Your task to perform on an android device: See recent photos Image 0: 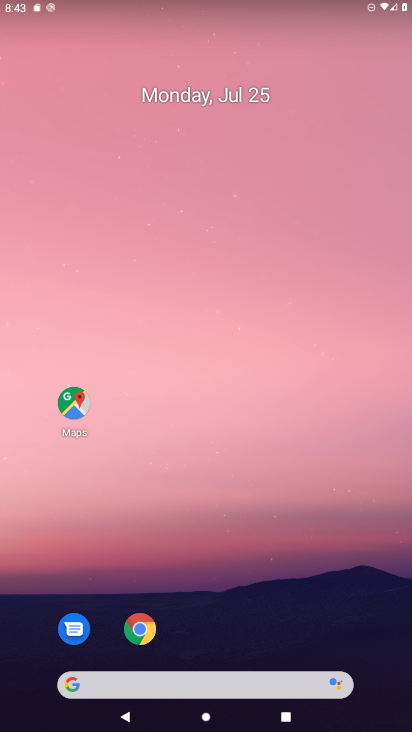
Step 0: drag from (242, 602) to (219, 0)
Your task to perform on an android device: See recent photos Image 1: 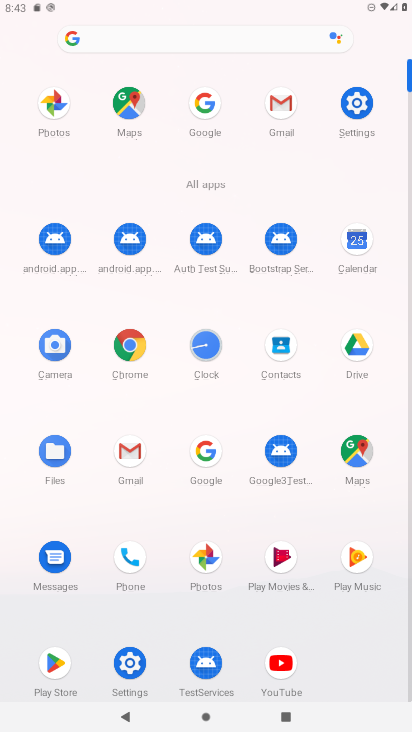
Step 1: click (52, 109)
Your task to perform on an android device: See recent photos Image 2: 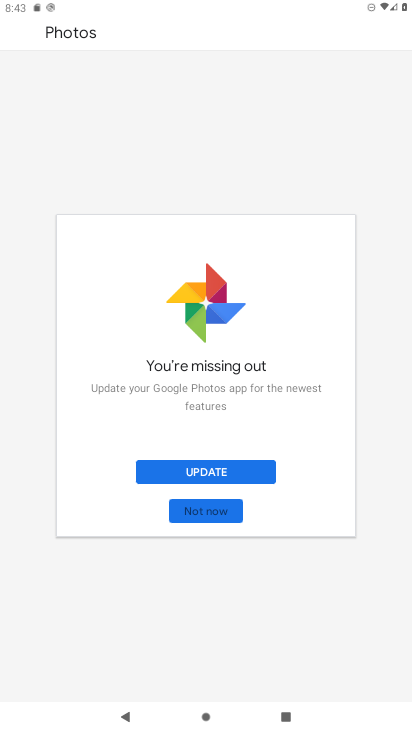
Step 2: click (208, 479)
Your task to perform on an android device: See recent photos Image 3: 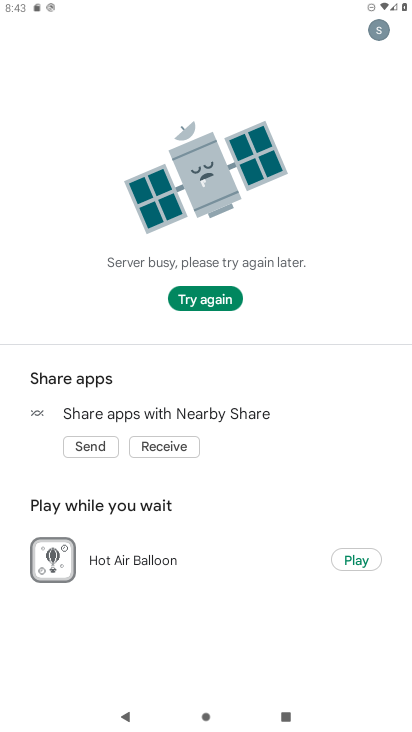
Step 3: press back button
Your task to perform on an android device: See recent photos Image 4: 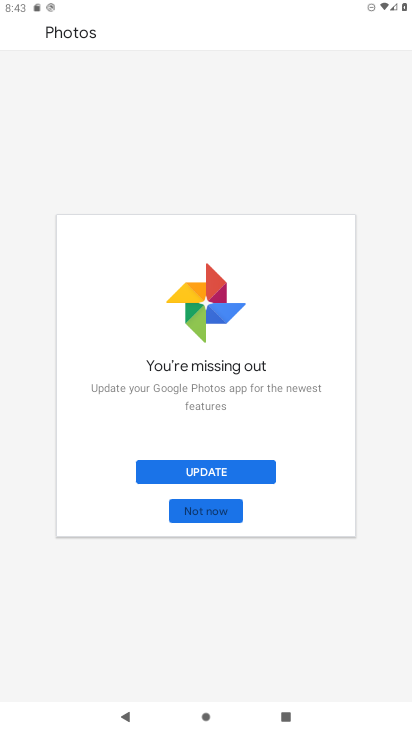
Step 4: click (216, 505)
Your task to perform on an android device: See recent photos Image 5: 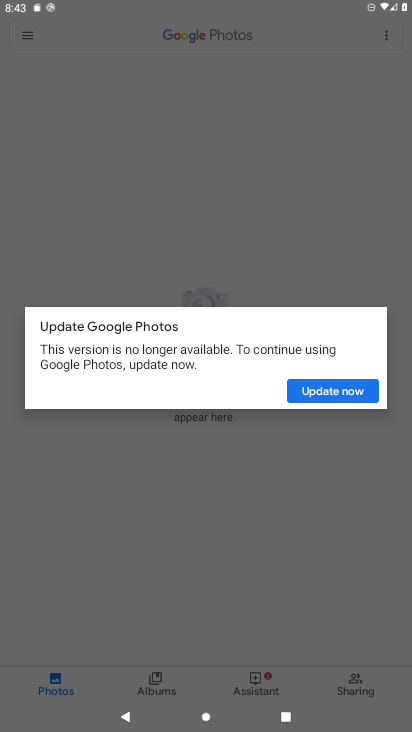
Step 5: click (323, 391)
Your task to perform on an android device: See recent photos Image 6: 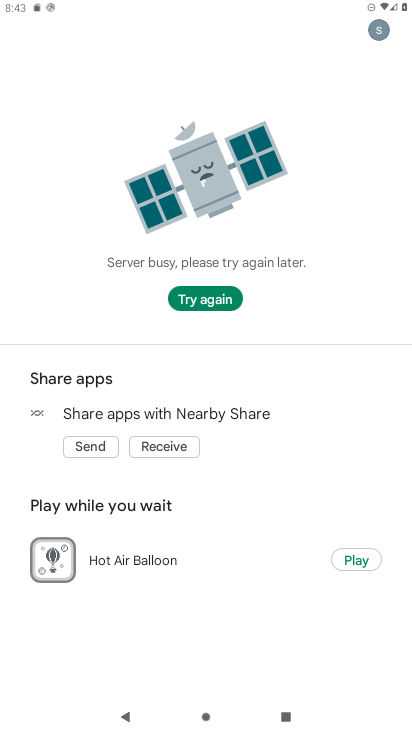
Step 6: task complete